Your task to perform on an android device: Open the calendar and show me this week's events? Image 0: 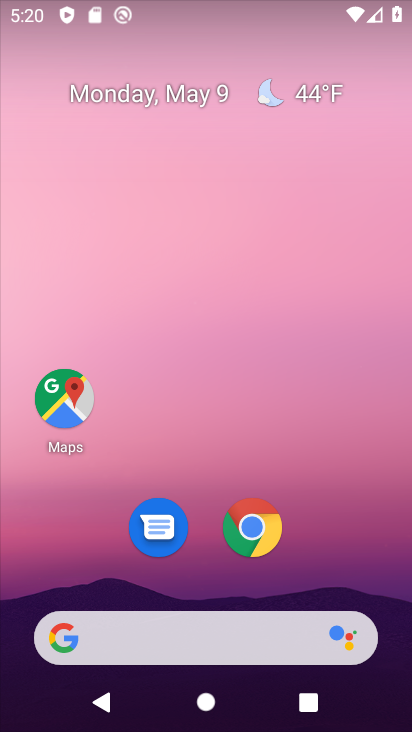
Step 0: drag from (328, 510) to (227, 41)
Your task to perform on an android device: Open the calendar and show me this week's events? Image 1: 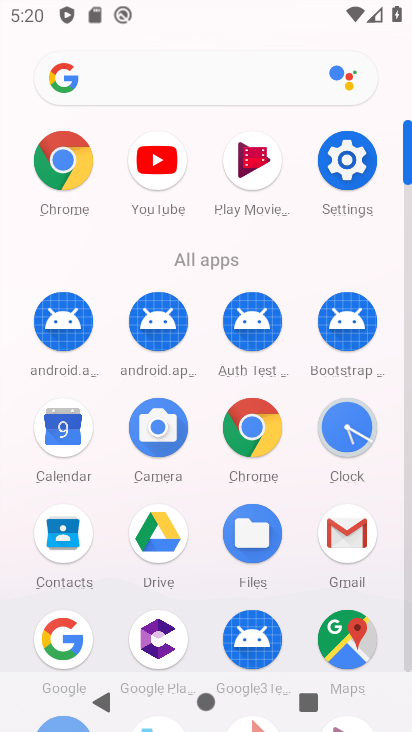
Step 1: drag from (5, 580) to (18, 247)
Your task to perform on an android device: Open the calendar and show me this week's events? Image 2: 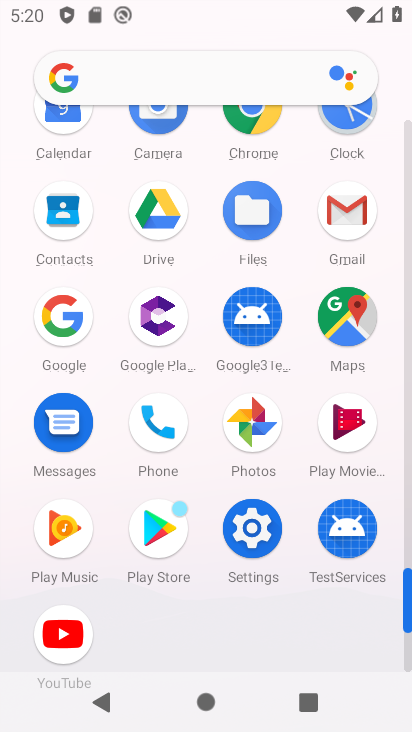
Step 2: drag from (14, 574) to (8, 214)
Your task to perform on an android device: Open the calendar and show me this week's events? Image 3: 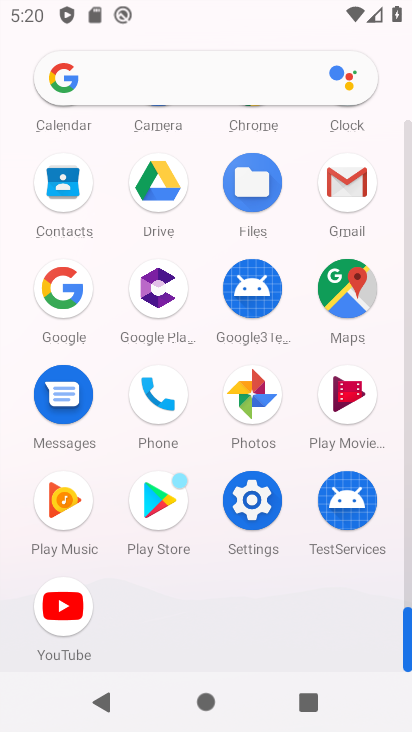
Step 3: drag from (5, 163) to (13, 524)
Your task to perform on an android device: Open the calendar and show me this week's events? Image 4: 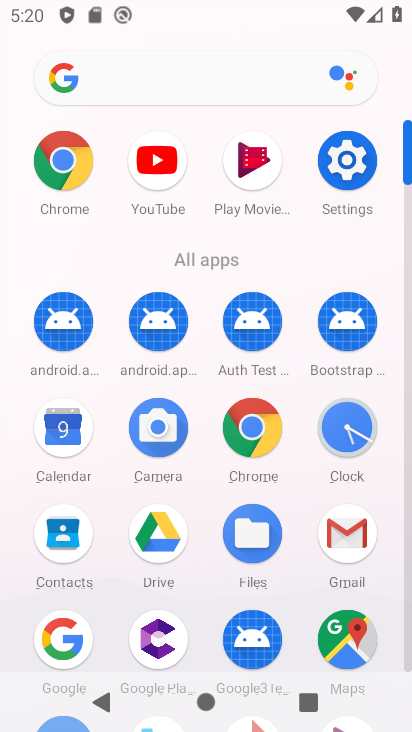
Step 4: drag from (4, 485) to (7, 363)
Your task to perform on an android device: Open the calendar and show me this week's events? Image 5: 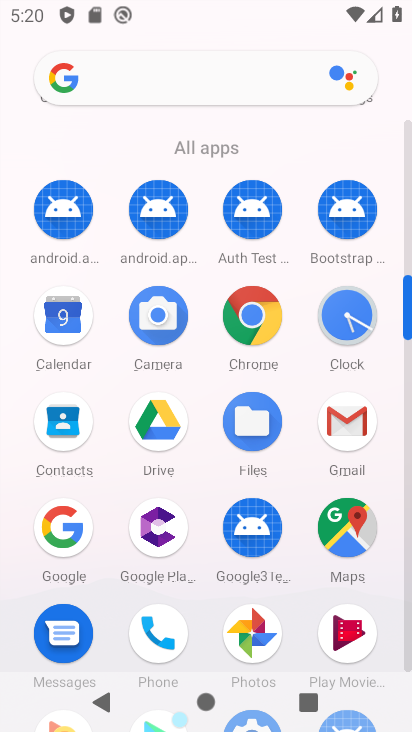
Step 5: click (52, 307)
Your task to perform on an android device: Open the calendar and show me this week's events? Image 6: 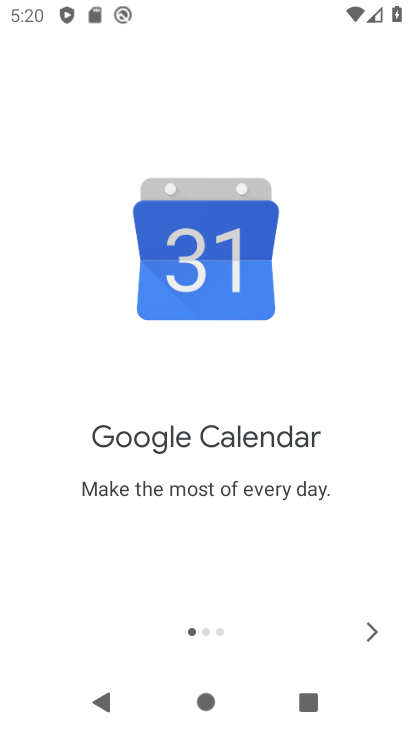
Step 6: click (361, 631)
Your task to perform on an android device: Open the calendar and show me this week's events? Image 7: 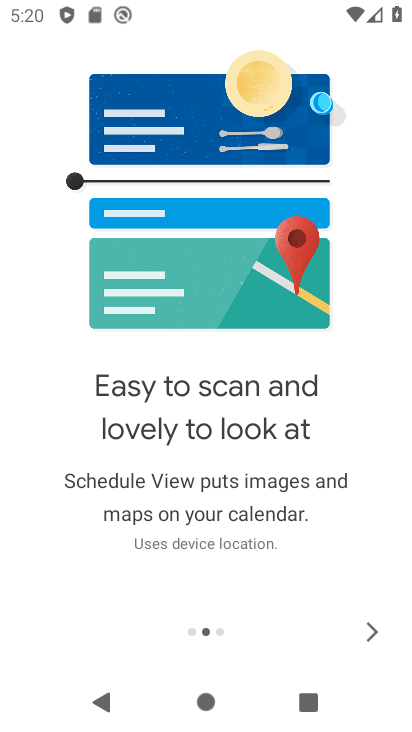
Step 7: click (362, 631)
Your task to perform on an android device: Open the calendar and show me this week's events? Image 8: 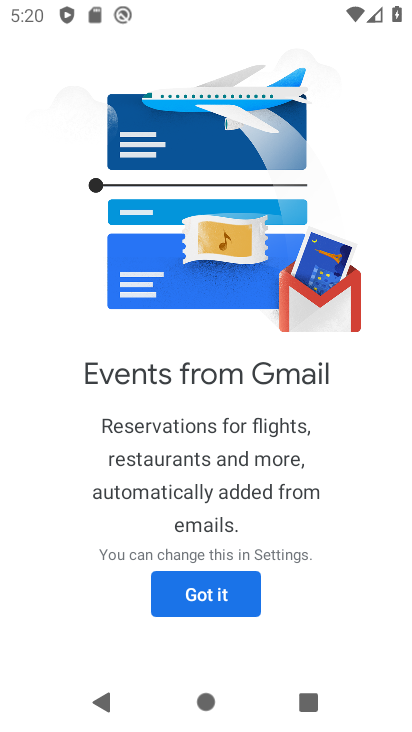
Step 8: click (226, 587)
Your task to perform on an android device: Open the calendar and show me this week's events? Image 9: 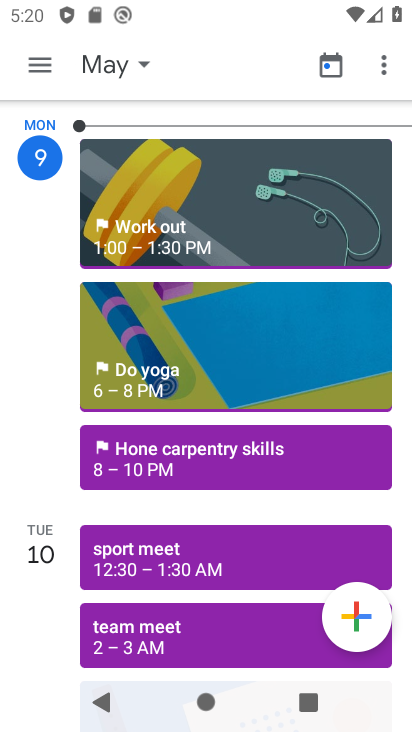
Step 9: drag from (151, 576) to (210, 229)
Your task to perform on an android device: Open the calendar and show me this week's events? Image 10: 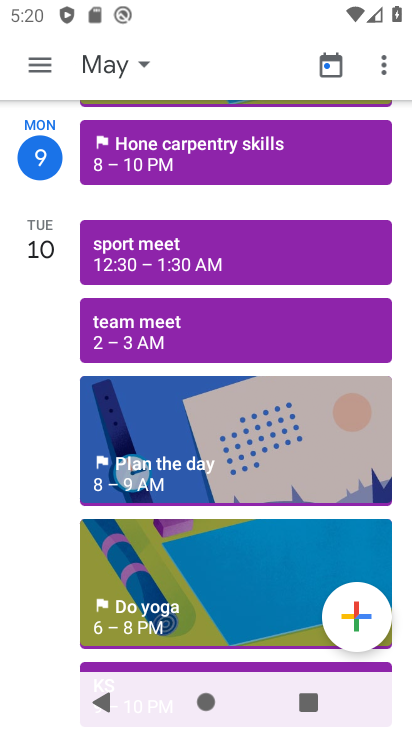
Step 10: click (39, 61)
Your task to perform on an android device: Open the calendar and show me this week's events? Image 11: 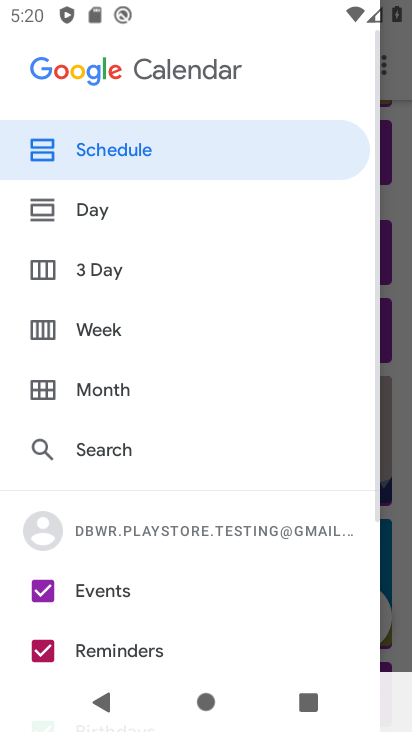
Step 11: click (101, 329)
Your task to perform on an android device: Open the calendar and show me this week's events? Image 12: 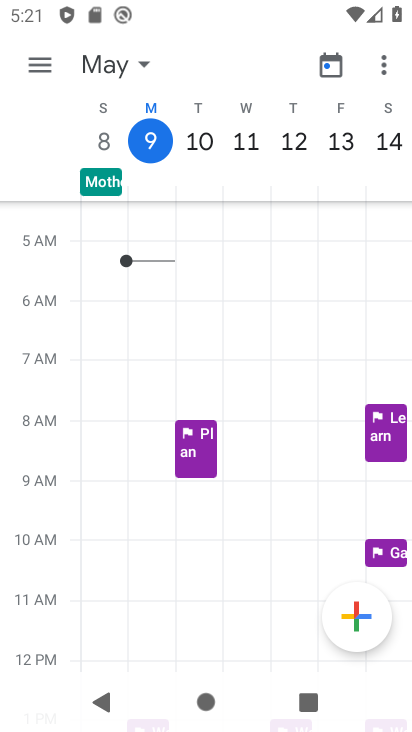
Step 12: task complete